Your task to perform on an android device: turn on improve location accuracy Image 0: 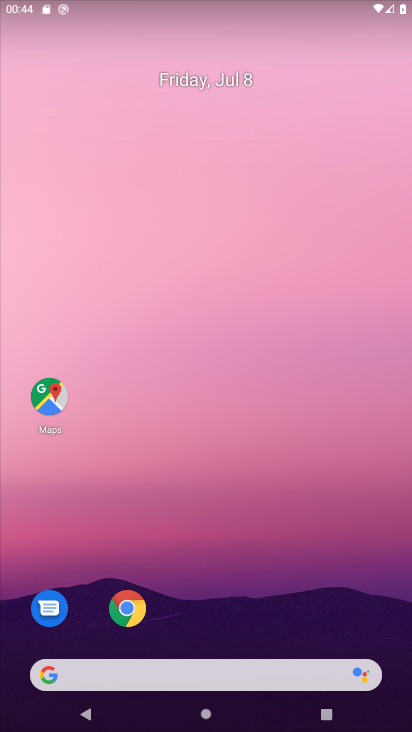
Step 0: drag from (241, 617) to (338, 275)
Your task to perform on an android device: turn on improve location accuracy Image 1: 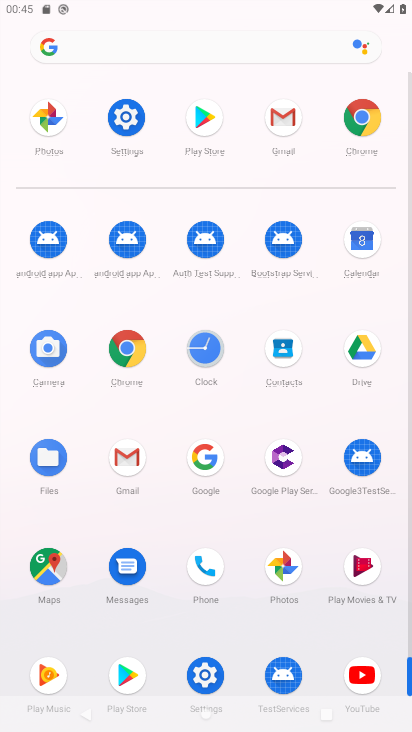
Step 1: click (103, 108)
Your task to perform on an android device: turn on improve location accuracy Image 2: 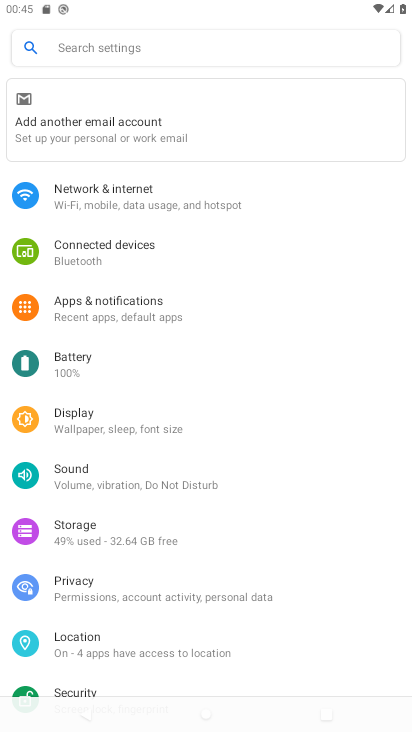
Step 2: click (94, 646)
Your task to perform on an android device: turn on improve location accuracy Image 3: 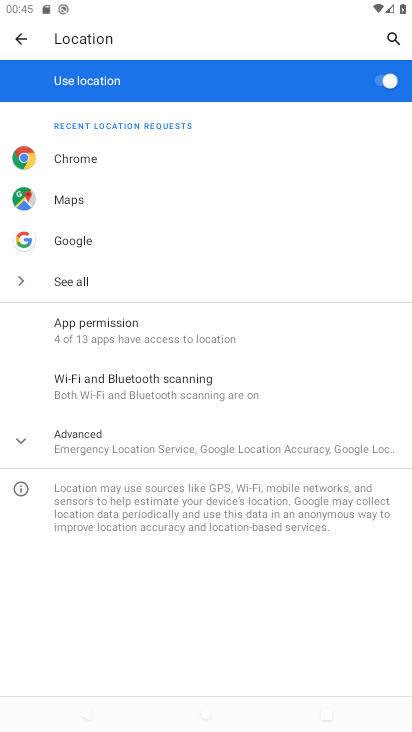
Step 3: click (133, 442)
Your task to perform on an android device: turn on improve location accuracy Image 4: 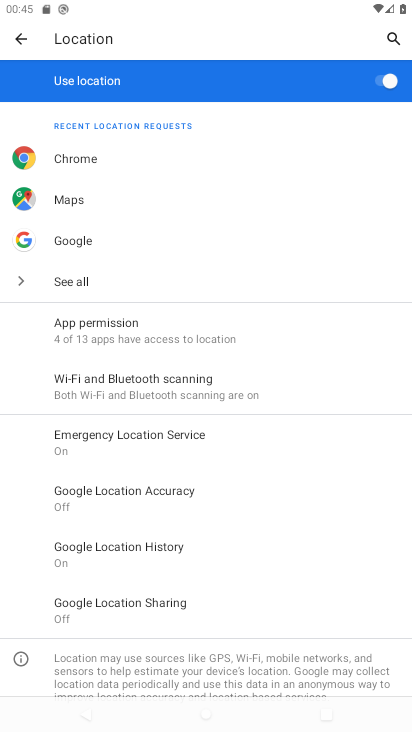
Step 4: click (164, 503)
Your task to perform on an android device: turn on improve location accuracy Image 5: 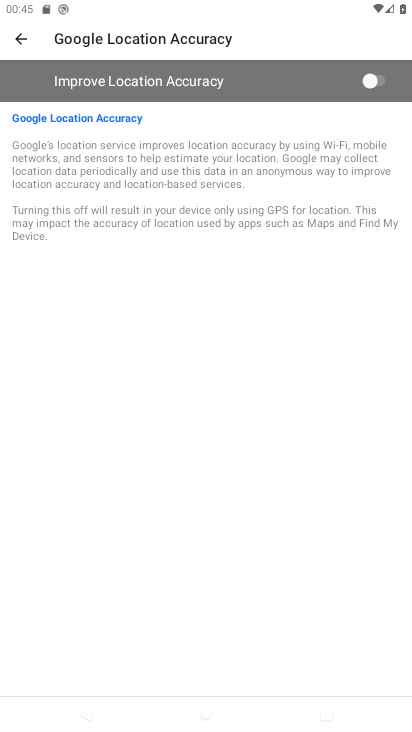
Step 5: click (386, 74)
Your task to perform on an android device: turn on improve location accuracy Image 6: 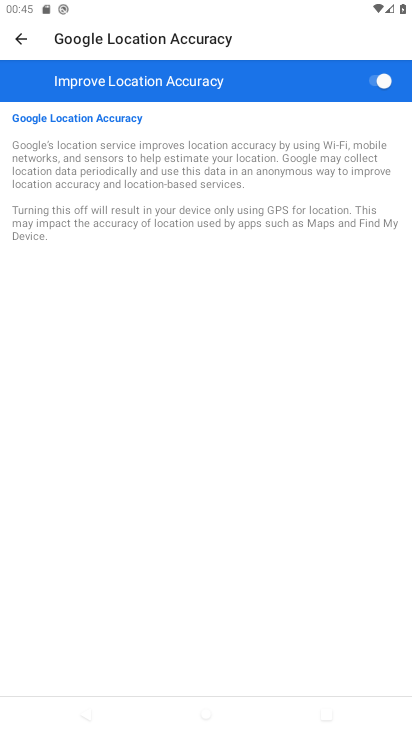
Step 6: task complete